Your task to perform on an android device: check the backup settings in the google photos Image 0: 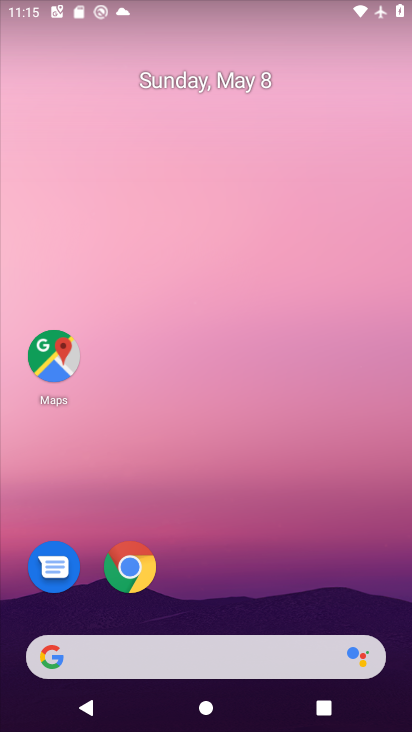
Step 0: drag from (236, 565) to (266, 186)
Your task to perform on an android device: check the backup settings in the google photos Image 1: 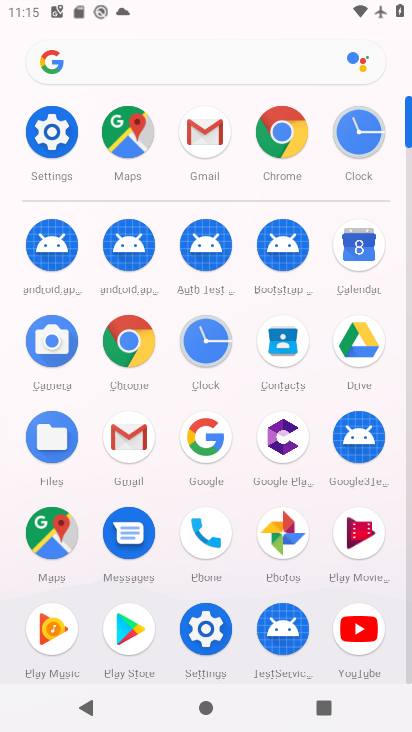
Step 1: click (289, 548)
Your task to perform on an android device: check the backup settings in the google photos Image 2: 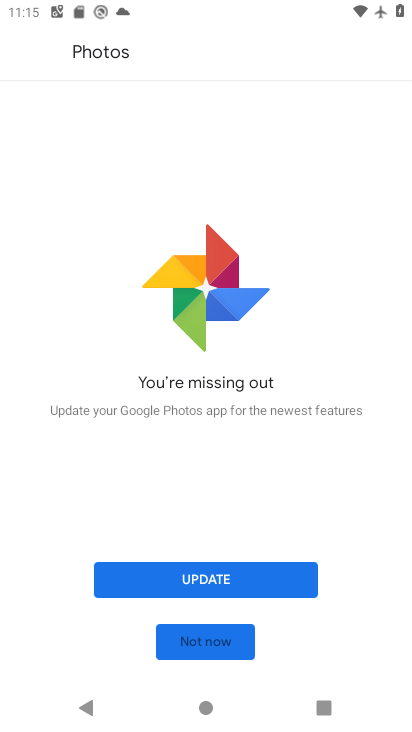
Step 2: click (194, 653)
Your task to perform on an android device: check the backup settings in the google photos Image 3: 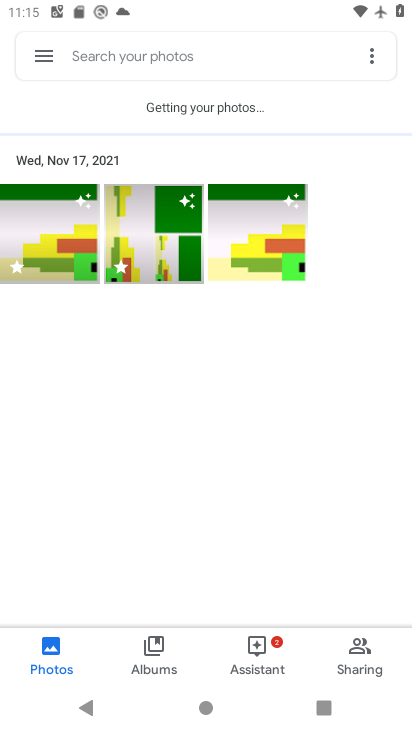
Step 3: click (35, 59)
Your task to perform on an android device: check the backup settings in the google photos Image 4: 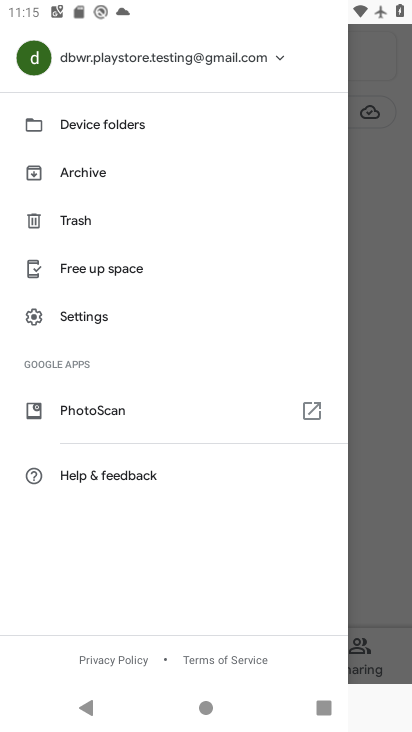
Step 4: click (95, 321)
Your task to perform on an android device: check the backup settings in the google photos Image 5: 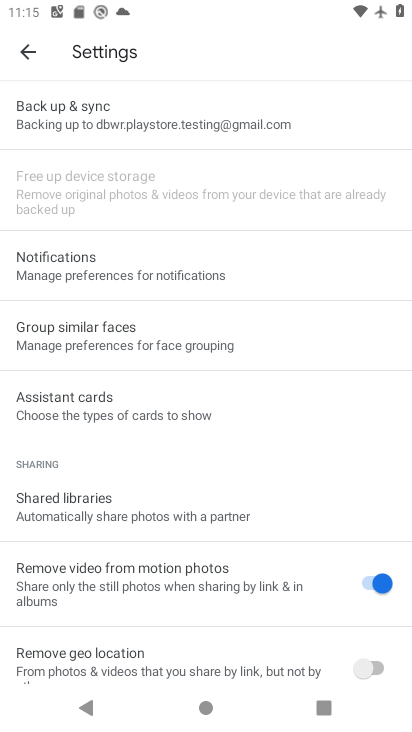
Step 5: click (78, 104)
Your task to perform on an android device: check the backup settings in the google photos Image 6: 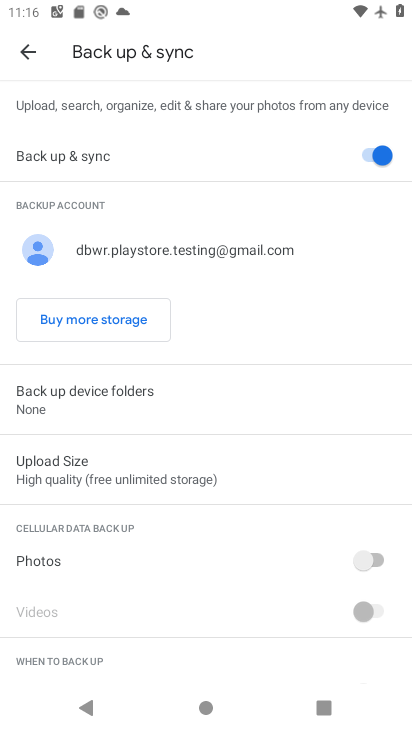
Step 6: task complete